Your task to perform on an android device: empty trash in google photos Image 0: 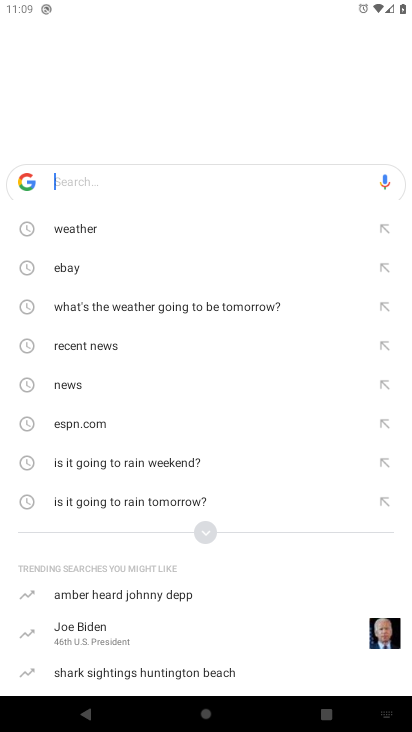
Step 0: press home button
Your task to perform on an android device: empty trash in google photos Image 1: 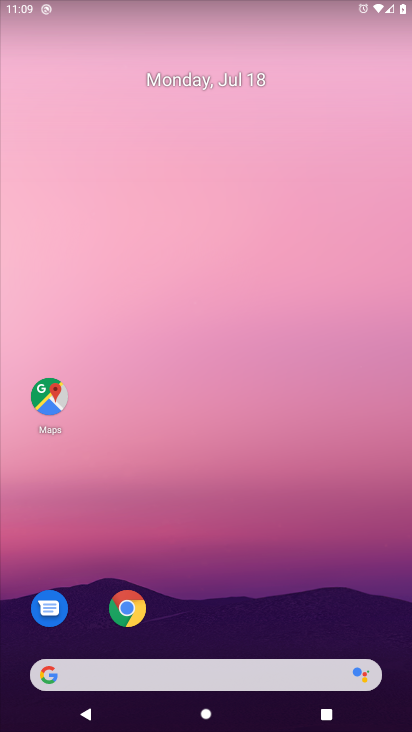
Step 1: drag from (39, 667) to (265, 284)
Your task to perform on an android device: empty trash in google photos Image 2: 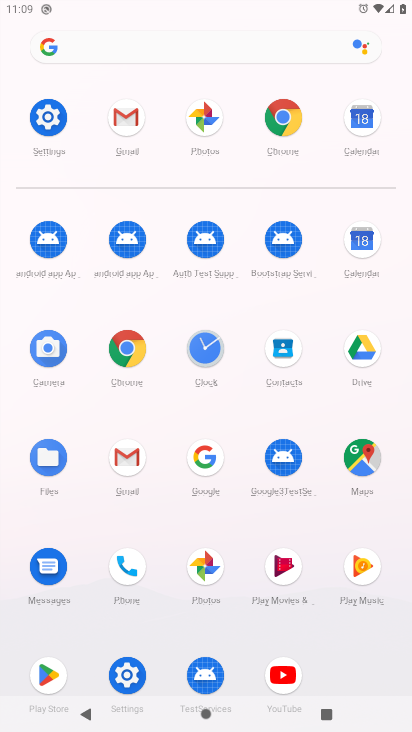
Step 2: click (208, 561)
Your task to perform on an android device: empty trash in google photos Image 3: 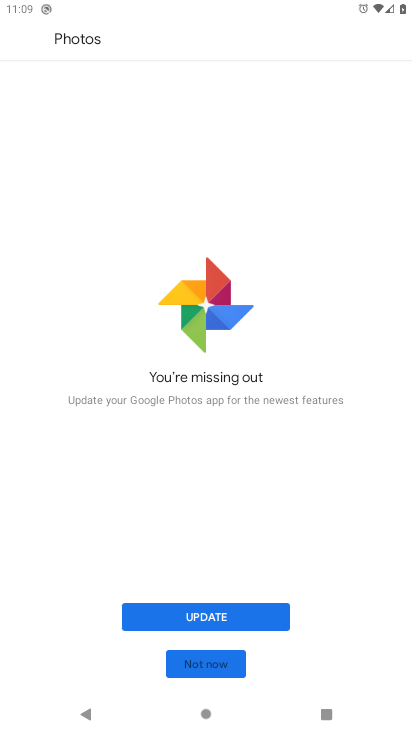
Step 3: click (221, 658)
Your task to perform on an android device: empty trash in google photos Image 4: 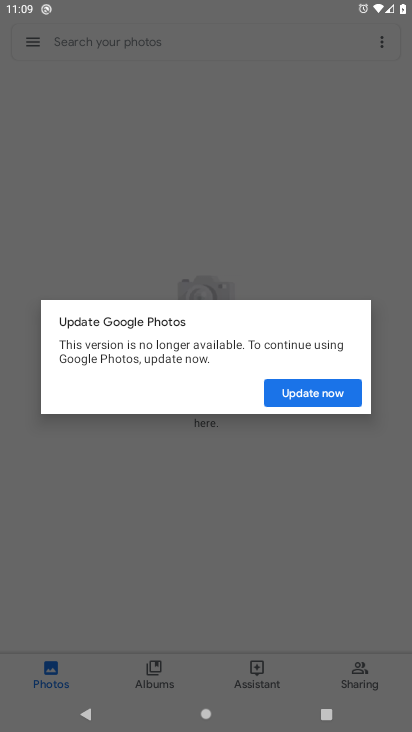
Step 4: click (296, 394)
Your task to perform on an android device: empty trash in google photos Image 5: 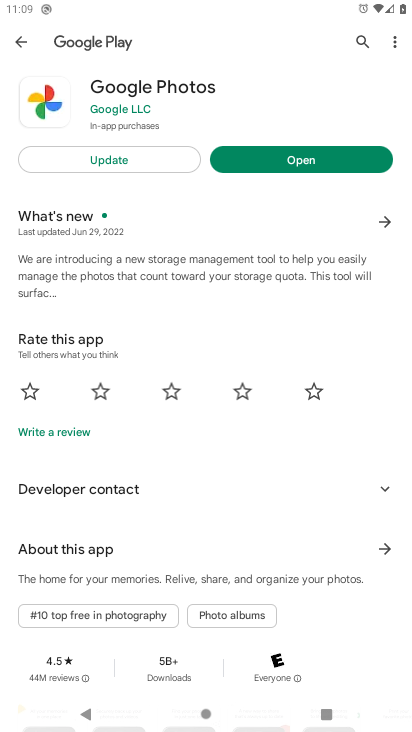
Step 5: click (318, 144)
Your task to perform on an android device: empty trash in google photos Image 6: 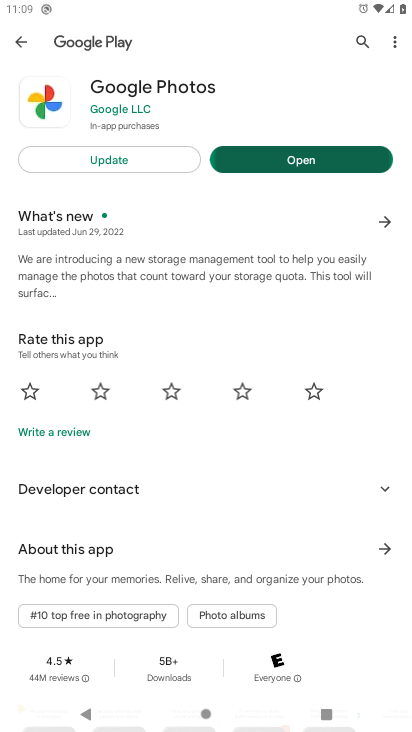
Step 6: click (315, 157)
Your task to perform on an android device: empty trash in google photos Image 7: 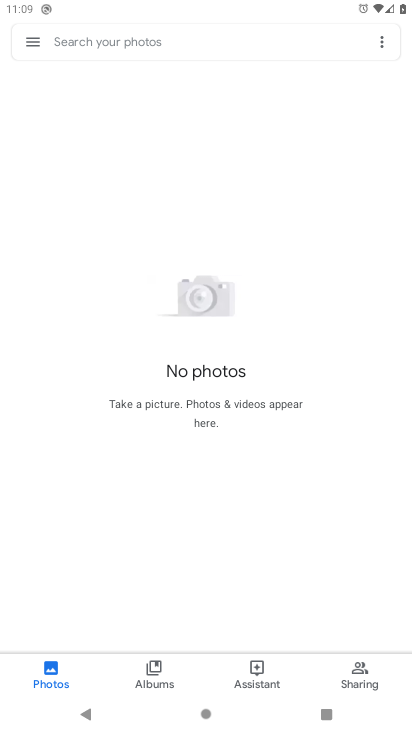
Step 7: click (33, 36)
Your task to perform on an android device: empty trash in google photos Image 8: 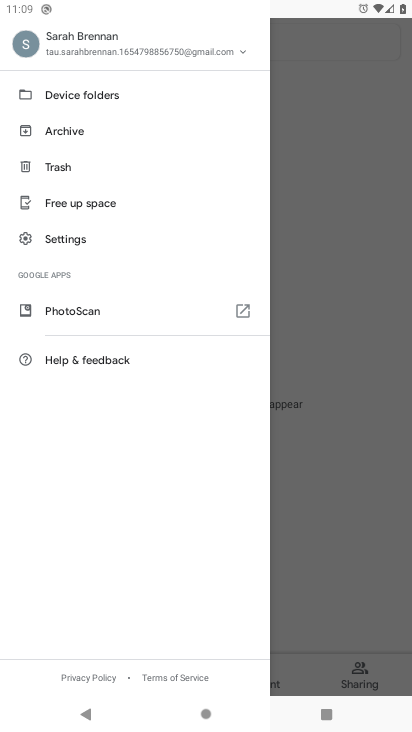
Step 8: click (68, 166)
Your task to perform on an android device: empty trash in google photos Image 9: 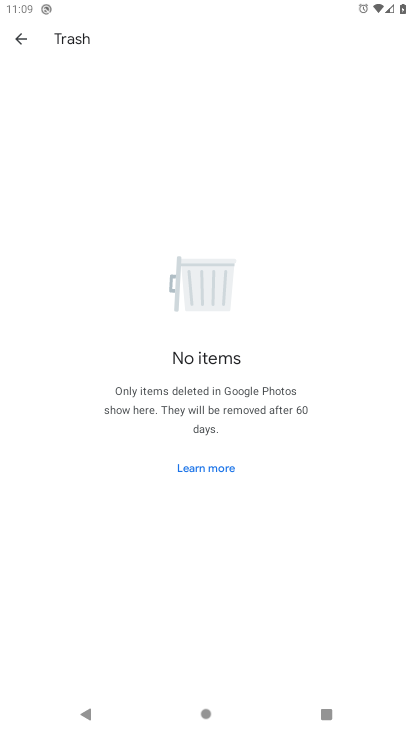
Step 9: task complete